Your task to perform on an android device: Do I have any events today? Image 0: 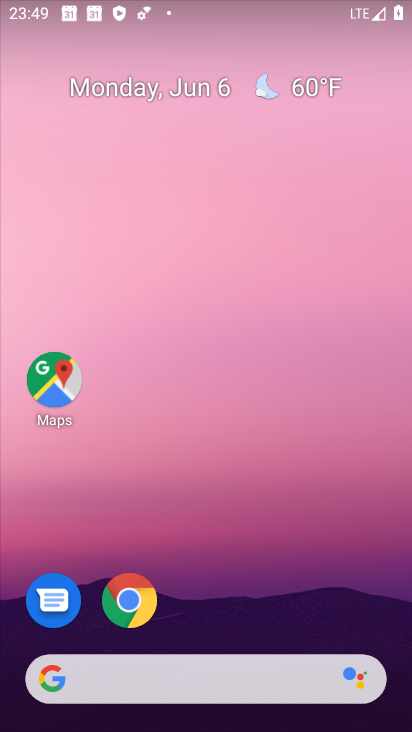
Step 0: drag from (241, 726) to (183, 6)
Your task to perform on an android device: Do I have any events today? Image 1: 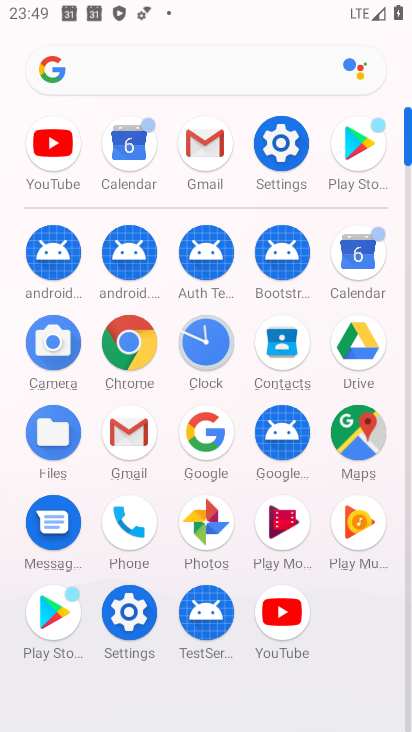
Step 1: click (362, 258)
Your task to perform on an android device: Do I have any events today? Image 2: 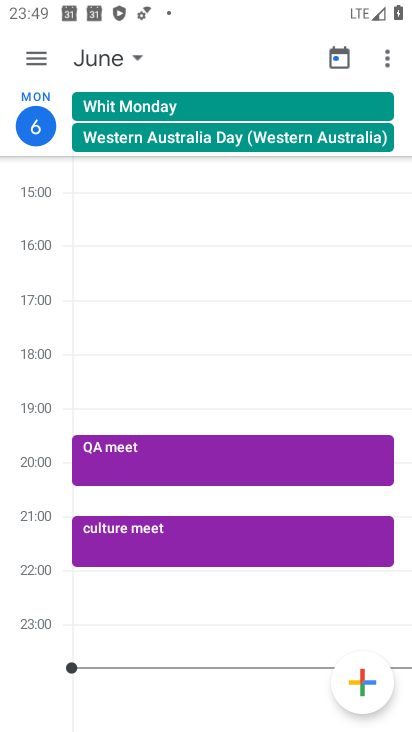
Step 2: click (138, 59)
Your task to perform on an android device: Do I have any events today? Image 3: 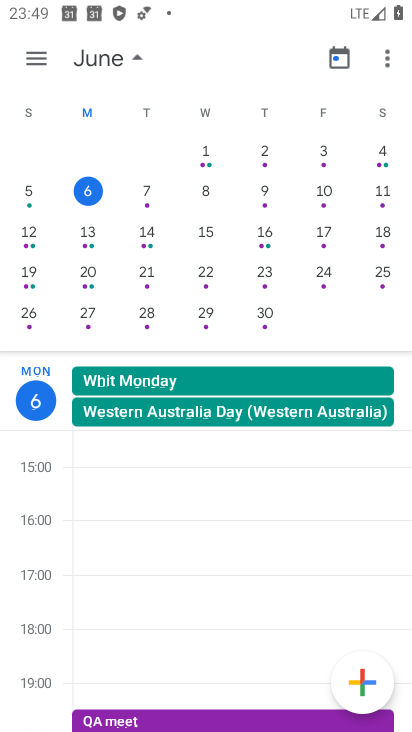
Step 3: click (38, 53)
Your task to perform on an android device: Do I have any events today? Image 4: 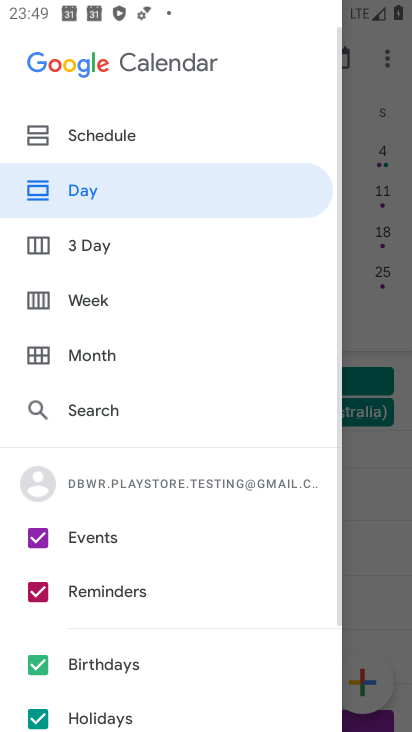
Step 4: click (38, 717)
Your task to perform on an android device: Do I have any events today? Image 5: 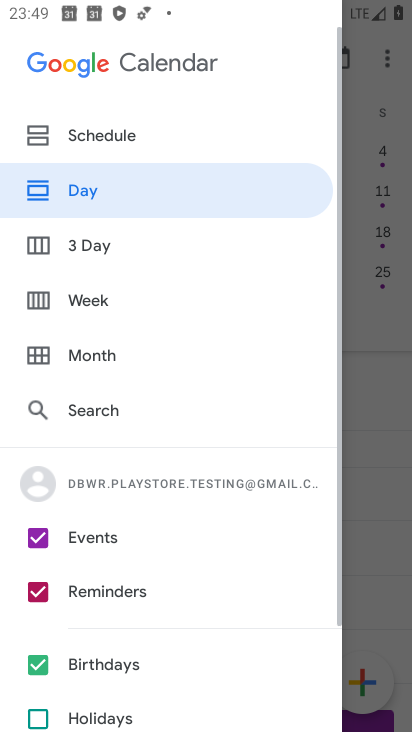
Step 5: click (38, 669)
Your task to perform on an android device: Do I have any events today? Image 6: 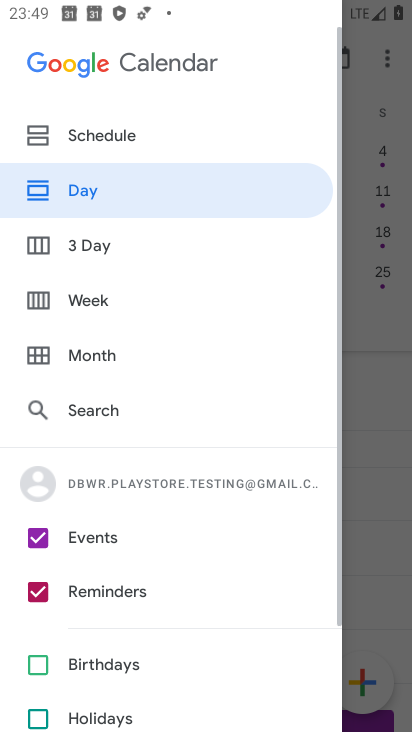
Step 6: click (38, 596)
Your task to perform on an android device: Do I have any events today? Image 7: 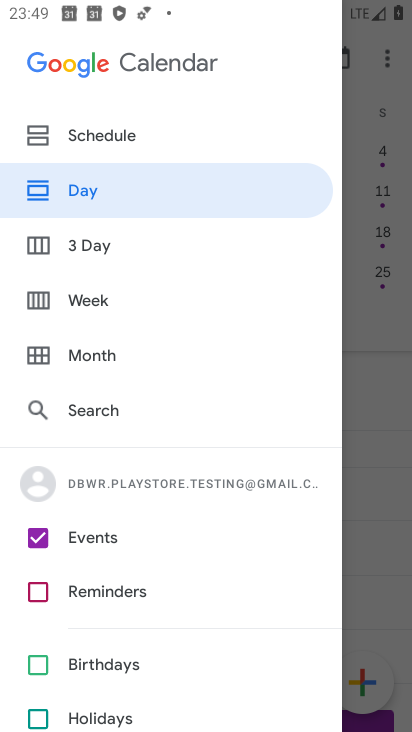
Step 7: click (366, 99)
Your task to perform on an android device: Do I have any events today? Image 8: 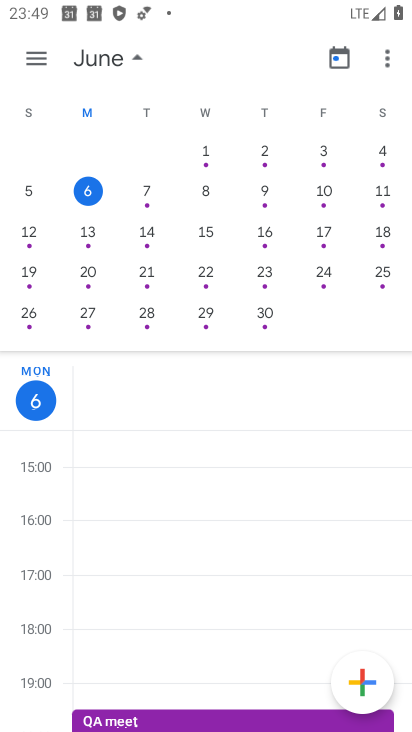
Step 8: click (91, 187)
Your task to perform on an android device: Do I have any events today? Image 9: 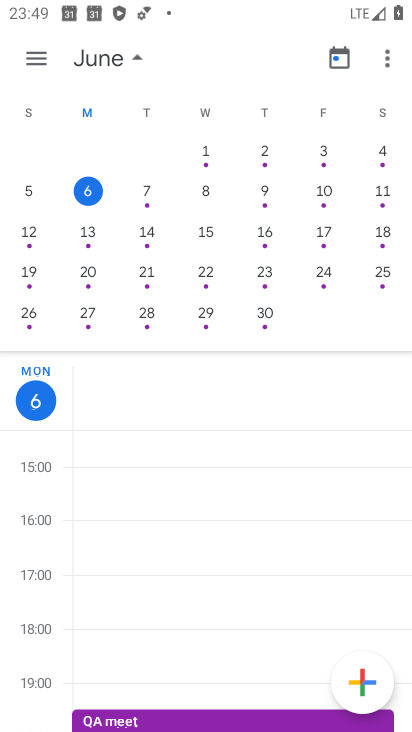
Step 9: click (137, 56)
Your task to perform on an android device: Do I have any events today? Image 10: 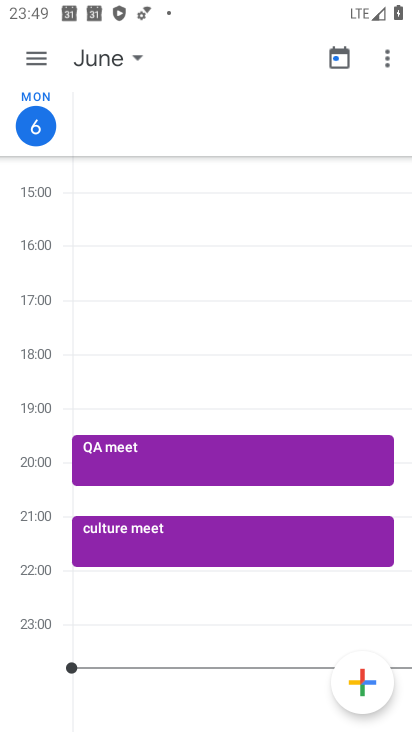
Step 10: task complete